Your task to perform on an android device: change the clock display to show seconds Image 0: 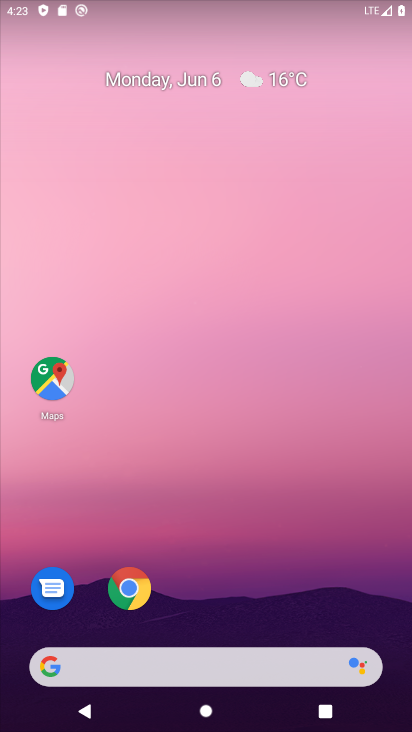
Step 0: drag from (289, 709) to (115, 175)
Your task to perform on an android device: change the clock display to show seconds Image 1: 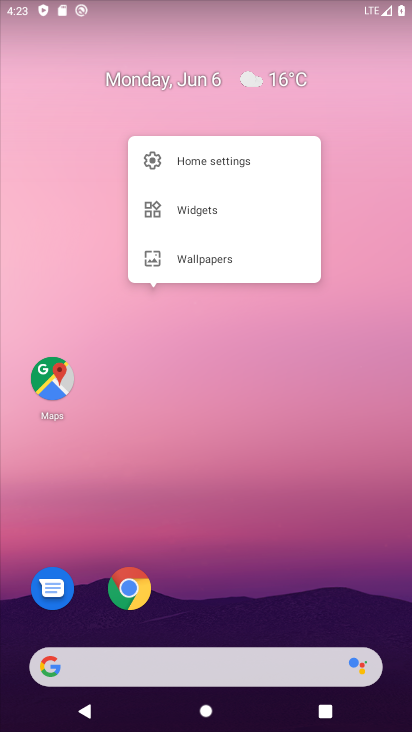
Step 1: drag from (253, 677) to (136, 0)
Your task to perform on an android device: change the clock display to show seconds Image 2: 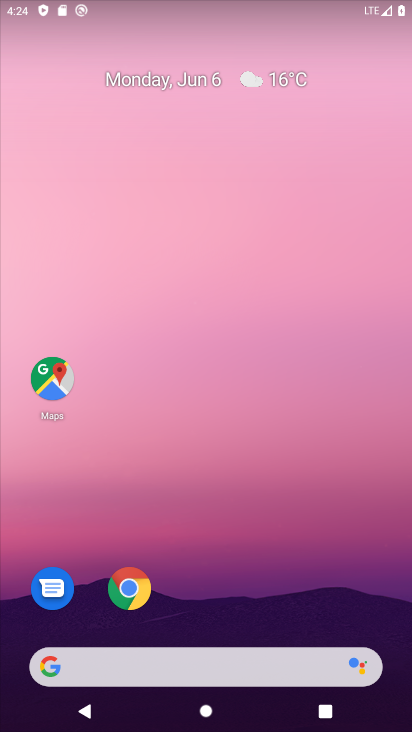
Step 2: drag from (222, 512) to (98, 13)
Your task to perform on an android device: change the clock display to show seconds Image 3: 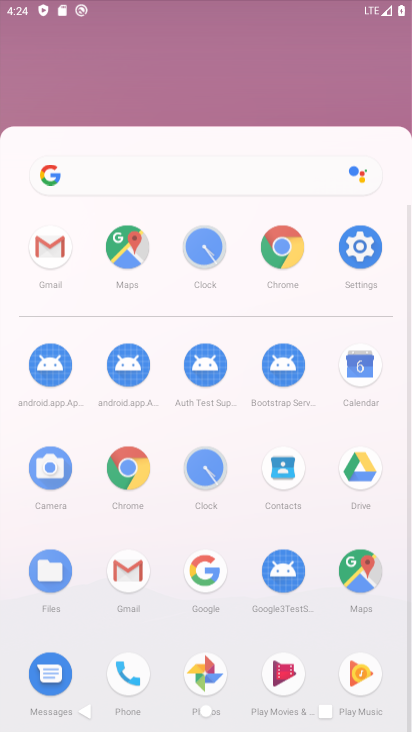
Step 3: drag from (254, 457) to (178, 7)
Your task to perform on an android device: change the clock display to show seconds Image 4: 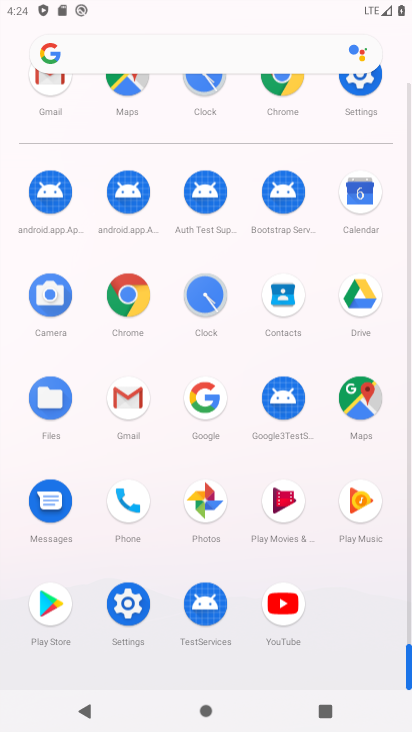
Step 4: drag from (254, 484) to (187, 23)
Your task to perform on an android device: change the clock display to show seconds Image 5: 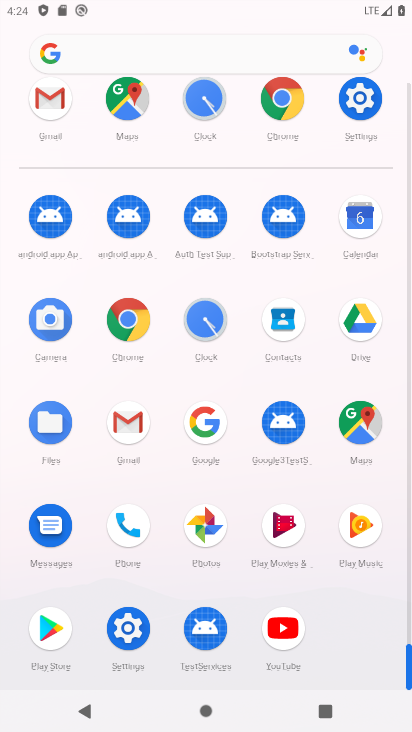
Step 5: click (199, 318)
Your task to perform on an android device: change the clock display to show seconds Image 6: 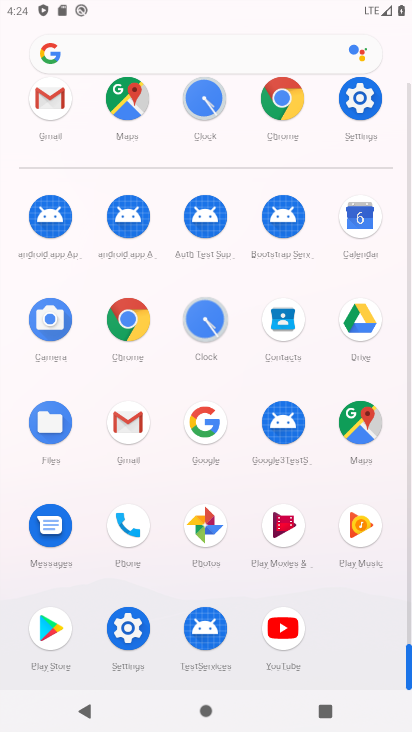
Step 6: click (199, 318)
Your task to perform on an android device: change the clock display to show seconds Image 7: 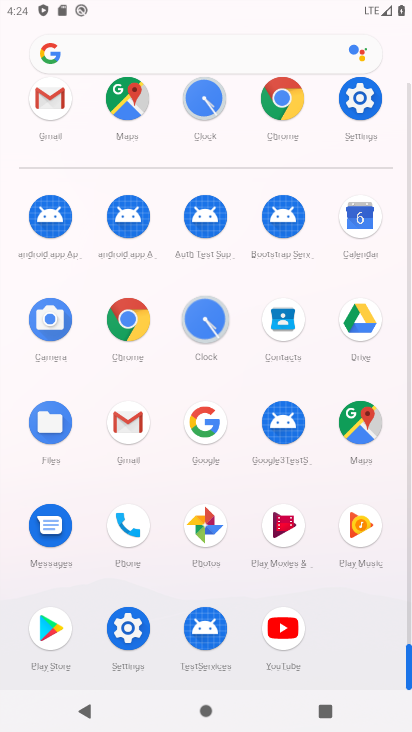
Step 7: click (203, 324)
Your task to perform on an android device: change the clock display to show seconds Image 8: 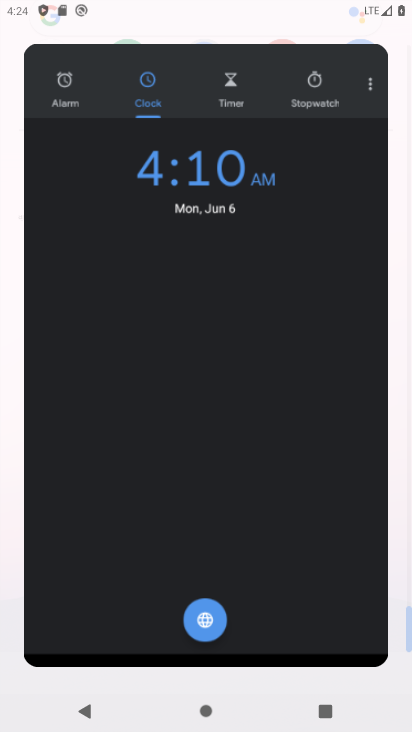
Step 8: click (204, 324)
Your task to perform on an android device: change the clock display to show seconds Image 9: 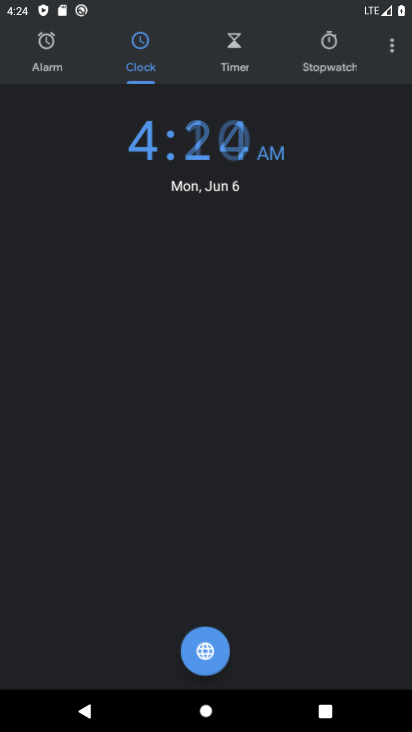
Step 9: click (204, 324)
Your task to perform on an android device: change the clock display to show seconds Image 10: 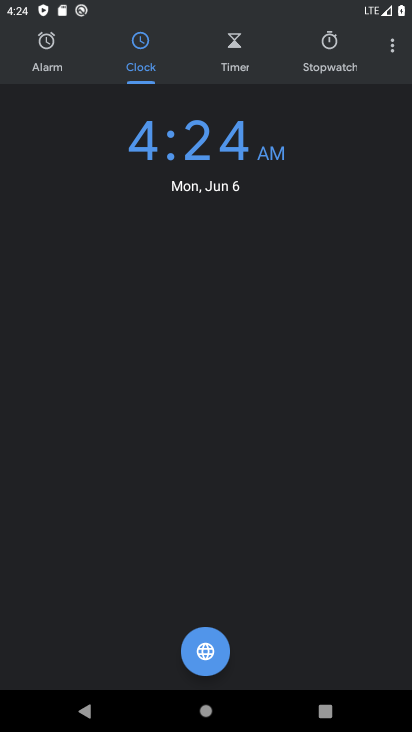
Step 10: click (388, 53)
Your task to perform on an android device: change the clock display to show seconds Image 11: 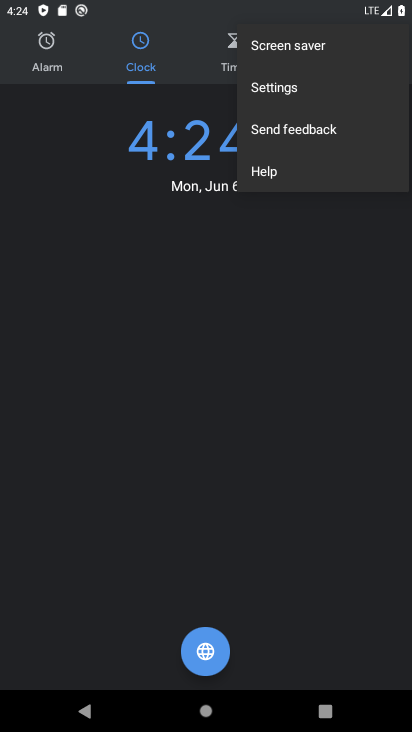
Step 11: click (278, 76)
Your task to perform on an android device: change the clock display to show seconds Image 12: 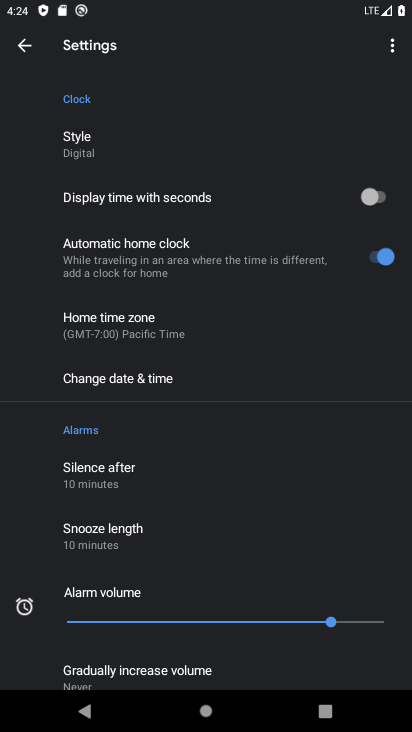
Step 12: click (367, 206)
Your task to perform on an android device: change the clock display to show seconds Image 13: 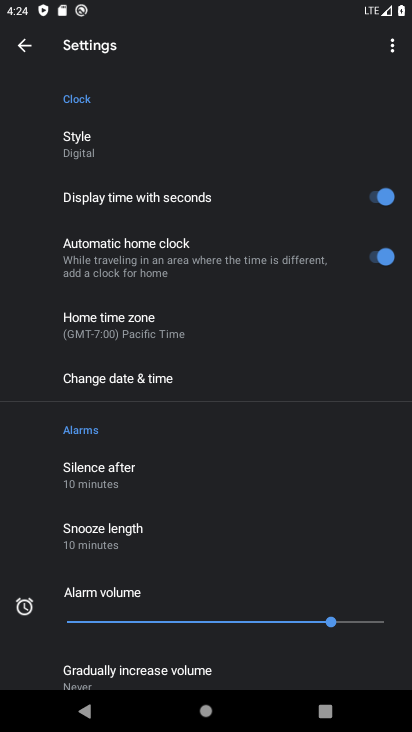
Step 13: task complete